Your task to perform on an android device: Show me recent news Image 0: 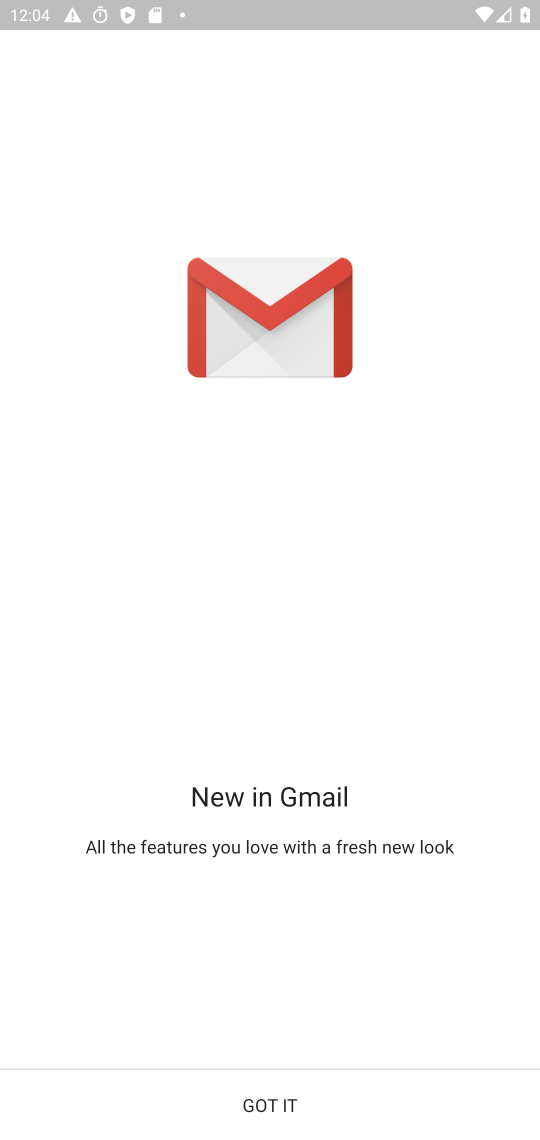
Step 0: click (284, 1090)
Your task to perform on an android device: Show me recent news Image 1: 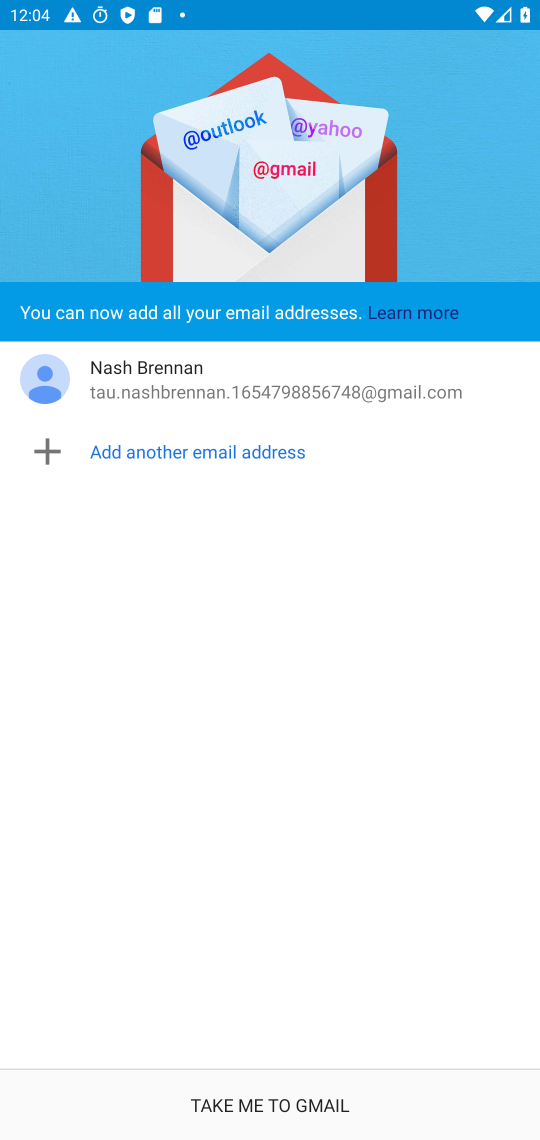
Step 1: press home button
Your task to perform on an android device: Show me recent news Image 2: 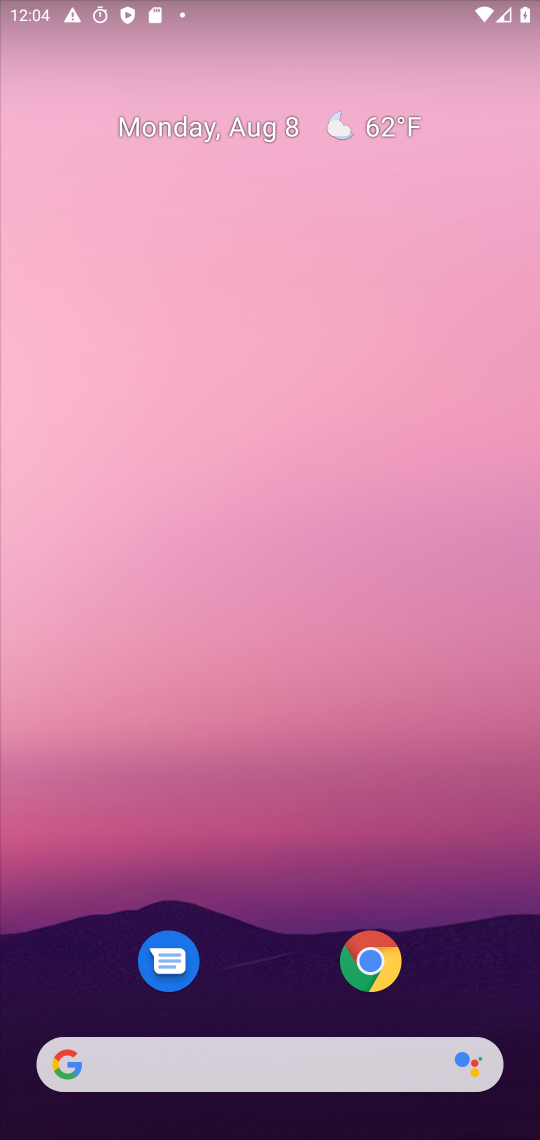
Step 2: drag from (254, 1074) to (257, 4)
Your task to perform on an android device: Show me recent news Image 3: 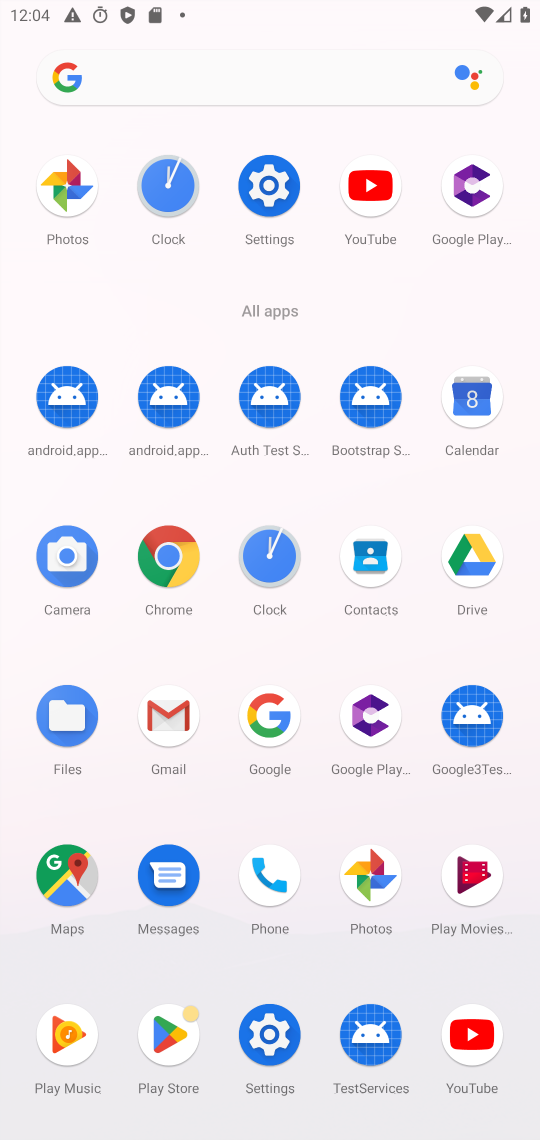
Step 3: click (162, 541)
Your task to perform on an android device: Show me recent news Image 4: 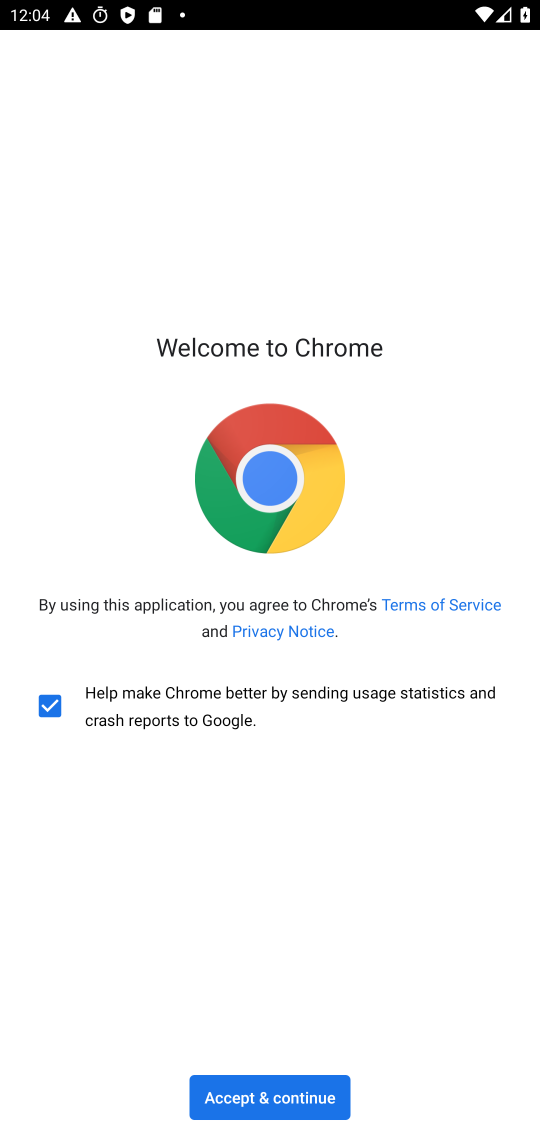
Step 4: click (291, 1085)
Your task to perform on an android device: Show me recent news Image 5: 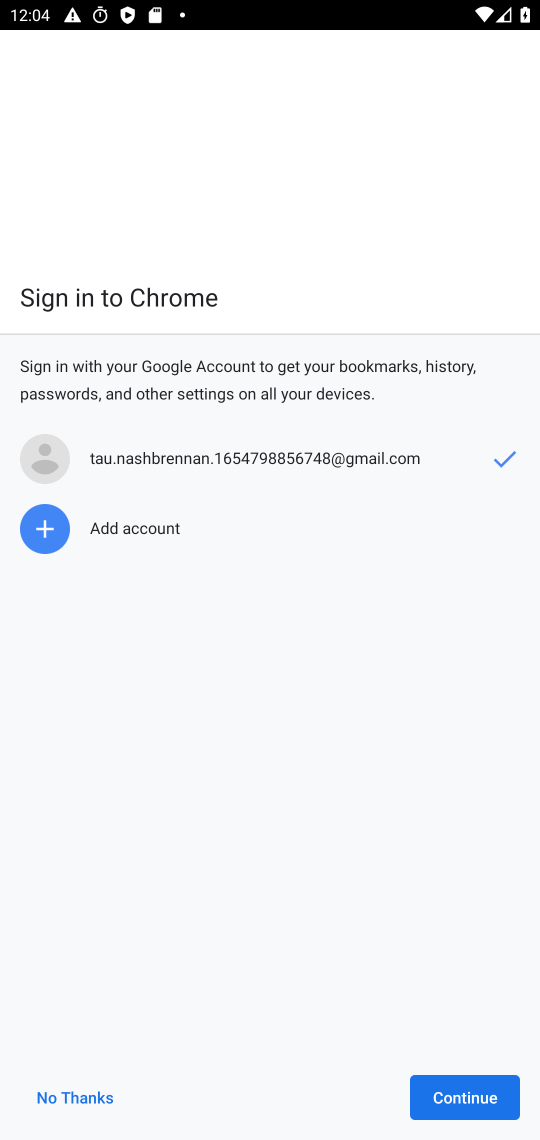
Step 5: click (85, 1097)
Your task to perform on an android device: Show me recent news Image 6: 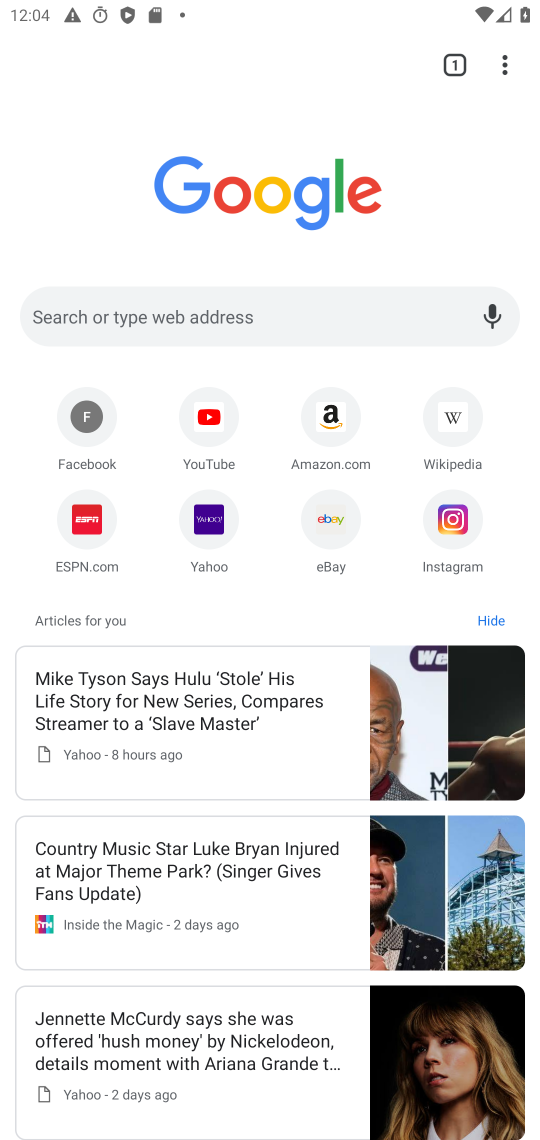
Step 6: click (382, 335)
Your task to perform on an android device: Show me recent news Image 7: 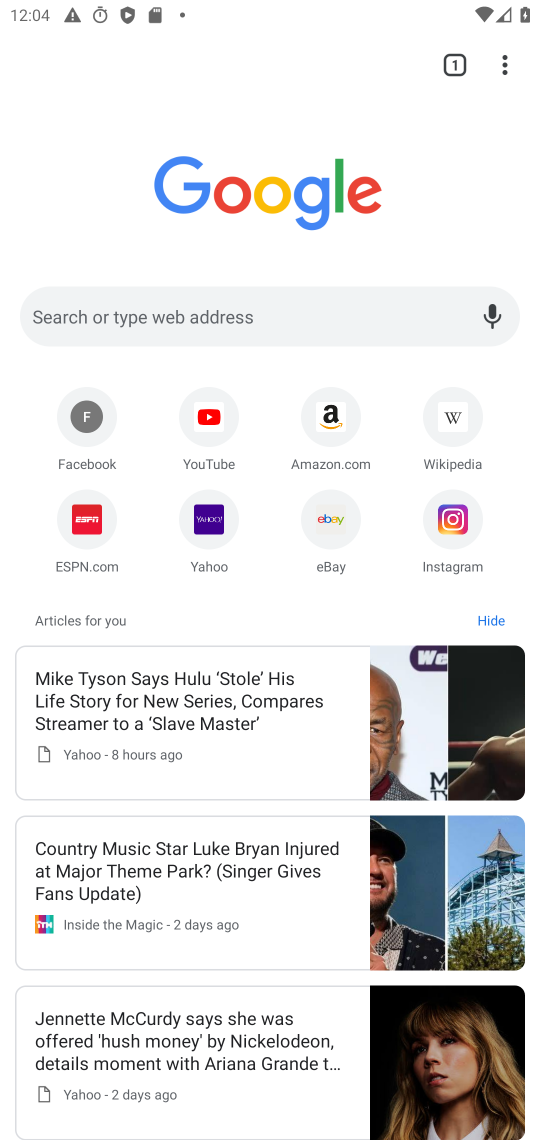
Step 7: click (382, 335)
Your task to perform on an android device: Show me recent news Image 8: 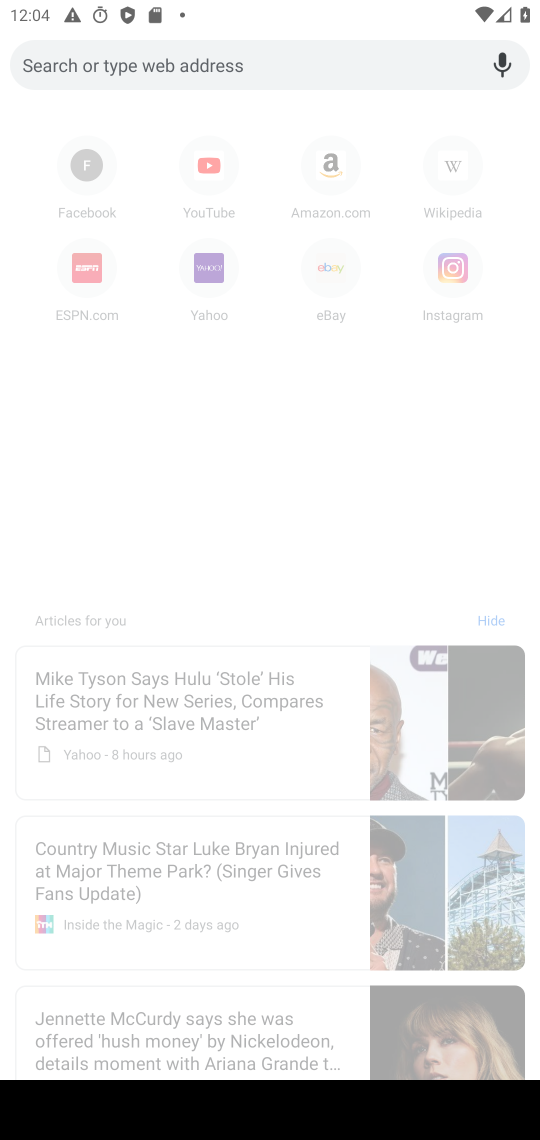
Step 8: type "show me recent news"
Your task to perform on an android device: Show me recent news Image 9: 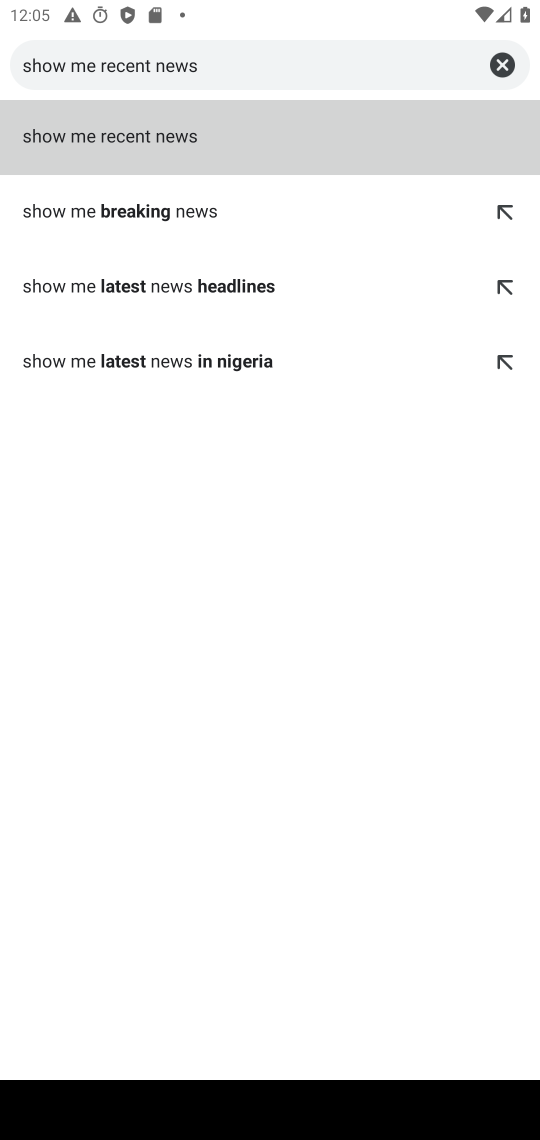
Step 9: click (166, 128)
Your task to perform on an android device: Show me recent news Image 10: 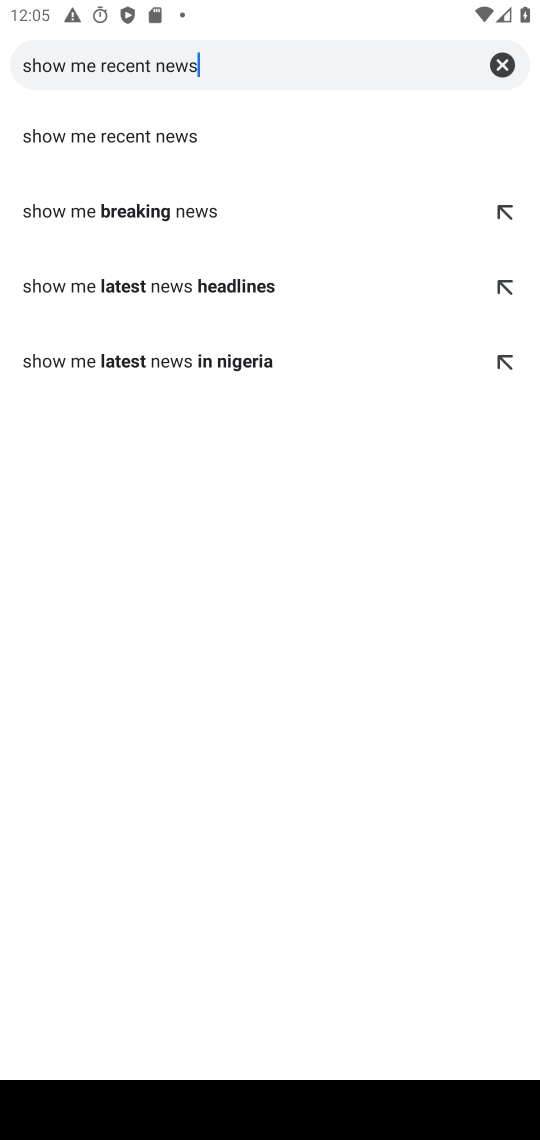
Step 10: click (150, 110)
Your task to perform on an android device: Show me recent news Image 11: 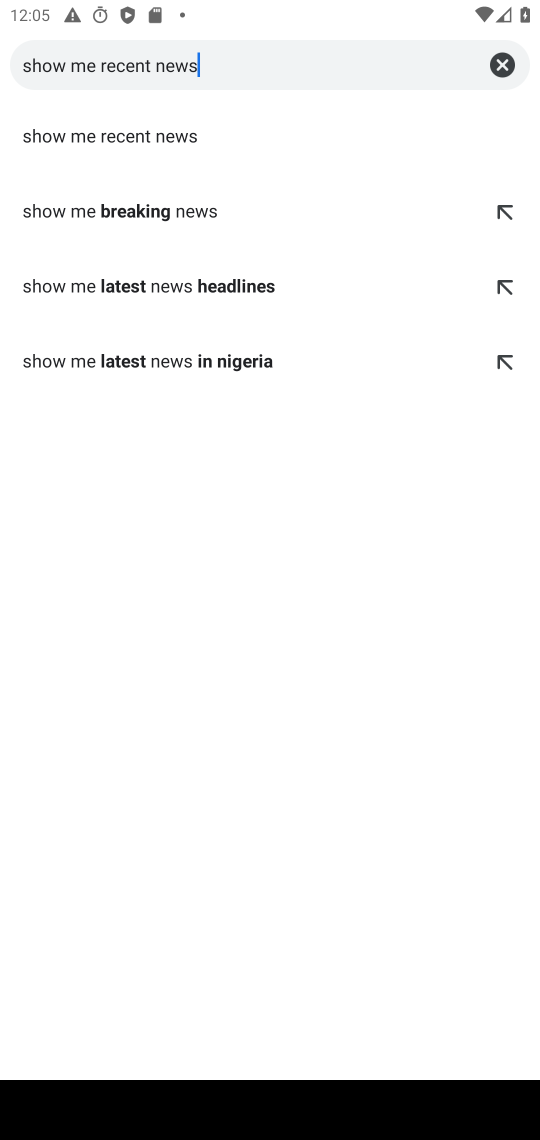
Step 11: click (67, 146)
Your task to perform on an android device: Show me recent news Image 12: 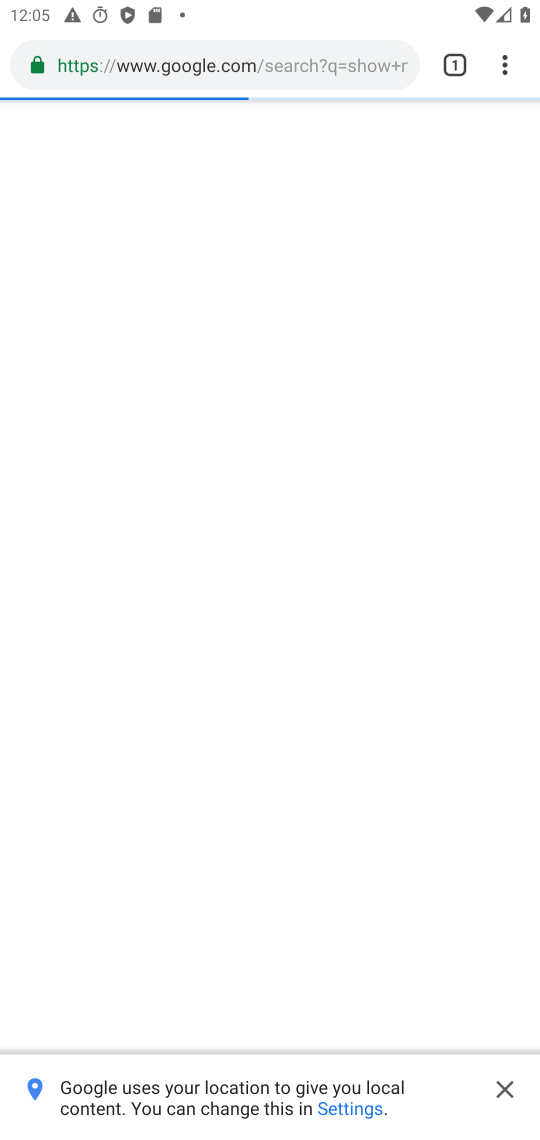
Step 12: task complete